Your task to perform on an android device: Go to privacy settings Image 0: 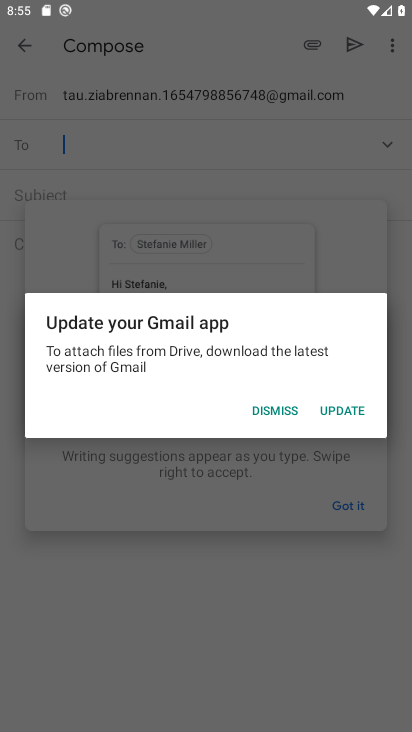
Step 0: press home button
Your task to perform on an android device: Go to privacy settings Image 1: 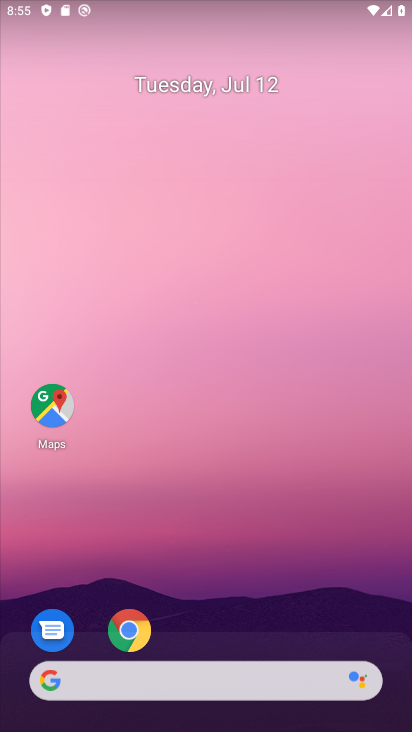
Step 1: drag from (326, 596) to (200, 117)
Your task to perform on an android device: Go to privacy settings Image 2: 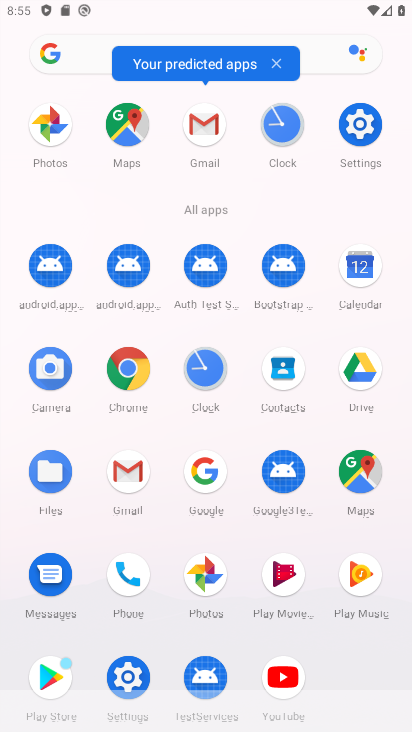
Step 2: click (371, 126)
Your task to perform on an android device: Go to privacy settings Image 3: 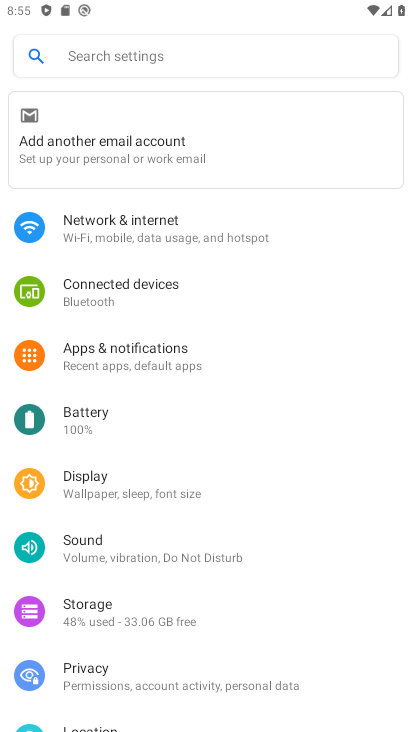
Step 3: click (169, 692)
Your task to perform on an android device: Go to privacy settings Image 4: 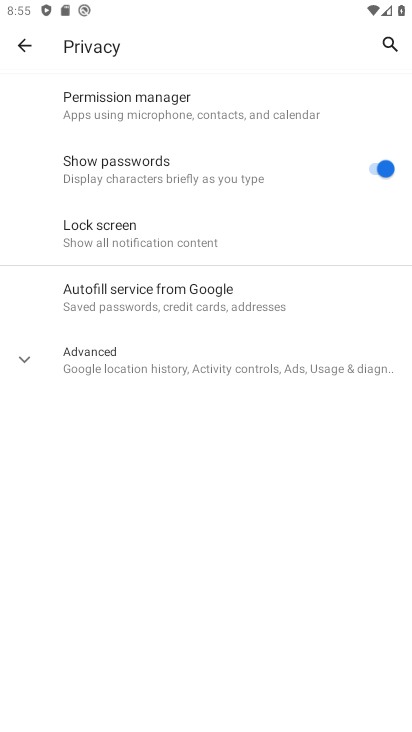
Step 4: task complete